Your task to perform on an android device: change the clock display to digital Image 0: 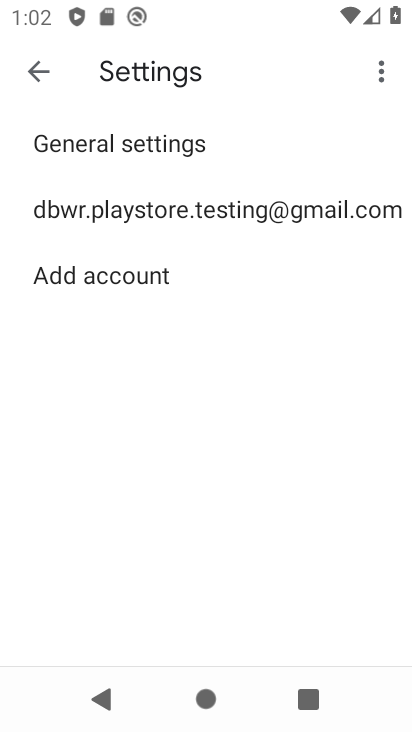
Step 0: press home button
Your task to perform on an android device: change the clock display to digital Image 1: 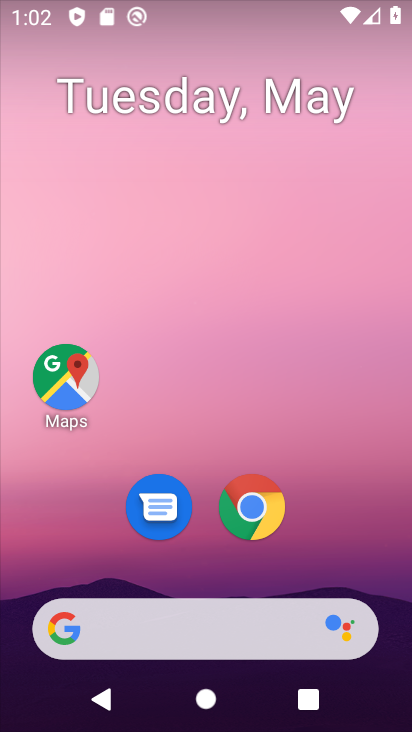
Step 1: drag from (397, 558) to (343, 123)
Your task to perform on an android device: change the clock display to digital Image 2: 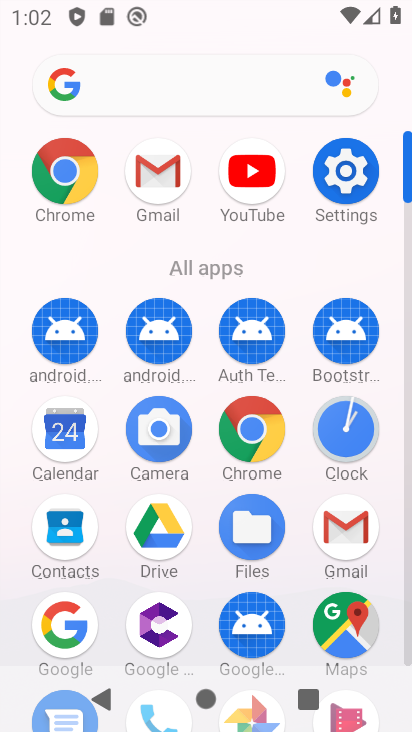
Step 2: click (347, 430)
Your task to perform on an android device: change the clock display to digital Image 3: 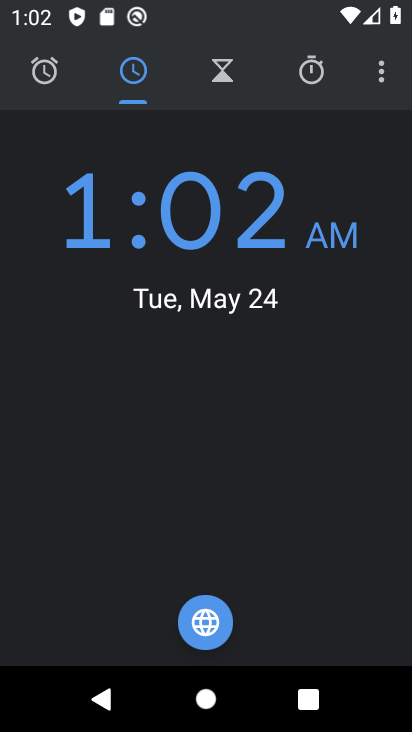
Step 3: click (386, 76)
Your task to perform on an android device: change the clock display to digital Image 4: 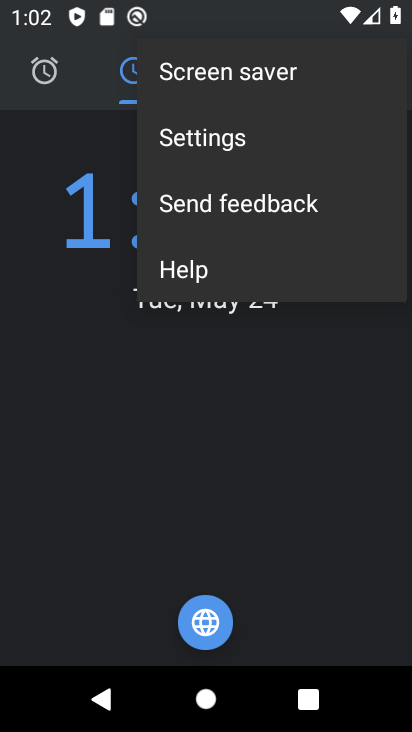
Step 4: click (327, 126)
Your task to perform on an android device: change the clock display to digital Image 5: 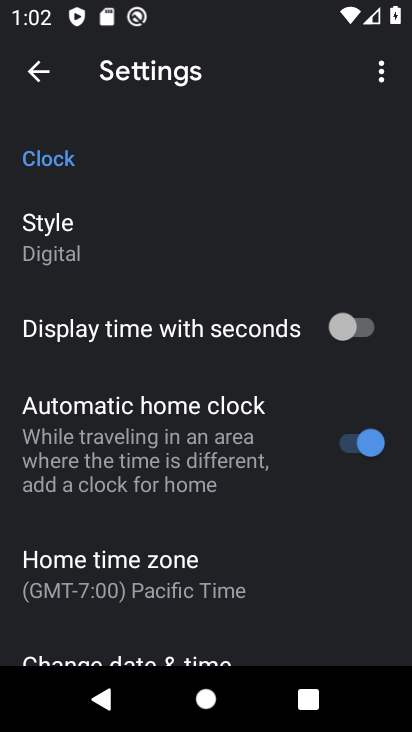
Step 5: click (238, 259)
Your task to perform on an android device: change the clock display to digital Image 6: 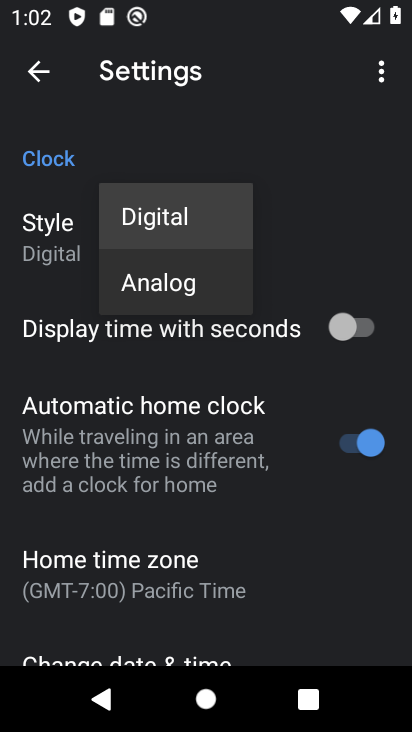
Step 6: task complete